Your task to perform on an android device: Go to eBay Image 0: 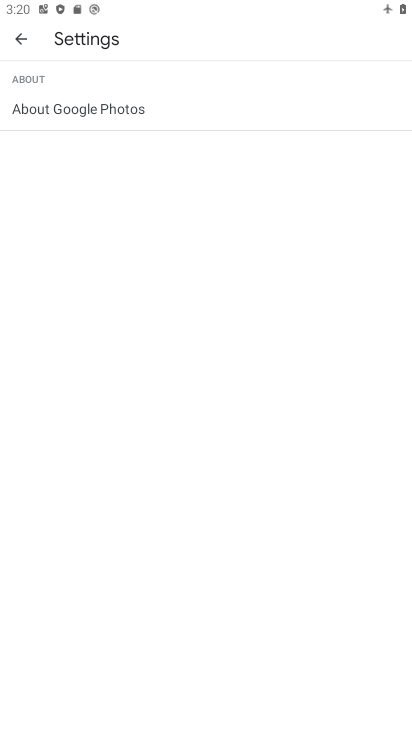
Step 0: press home button
Your task to perform on an android device: Go to eBay Image 1: 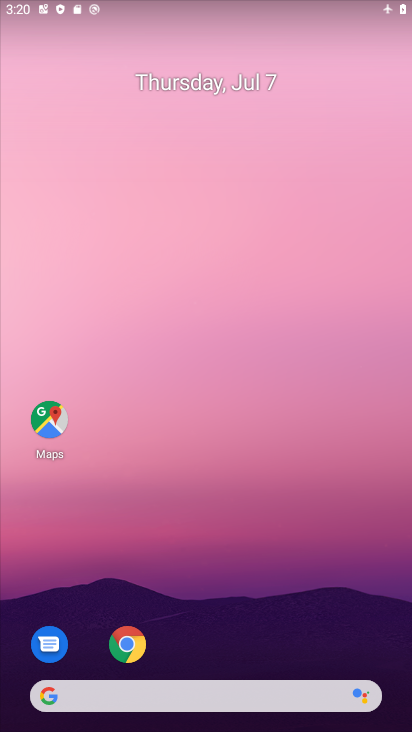
Step 1: click (91, 637)
Your task to perform on an android device: Go to eBay Image 2: 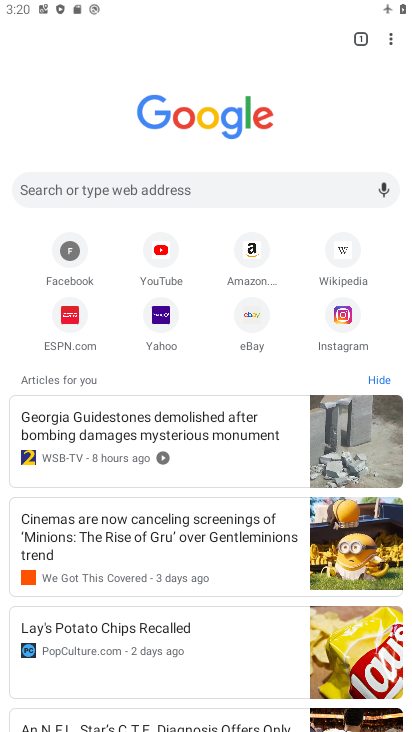
Step 2: click (264, 331)
Your task to perform on an android device: Go to eBay Image 3: 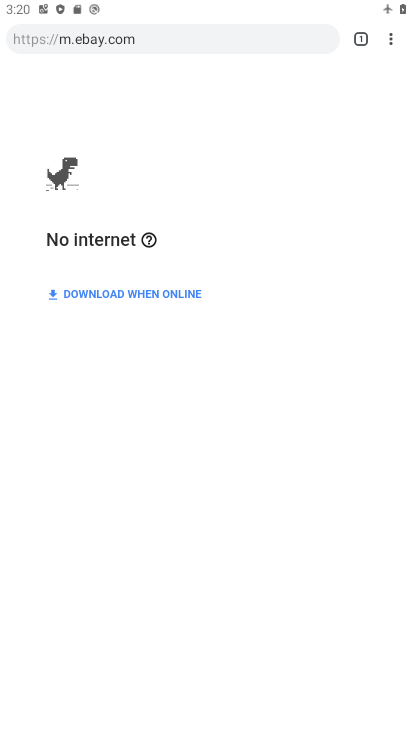
Step 3: task complete